Your task to perform on an android device: open app "Airtel Thanks" Image 0: 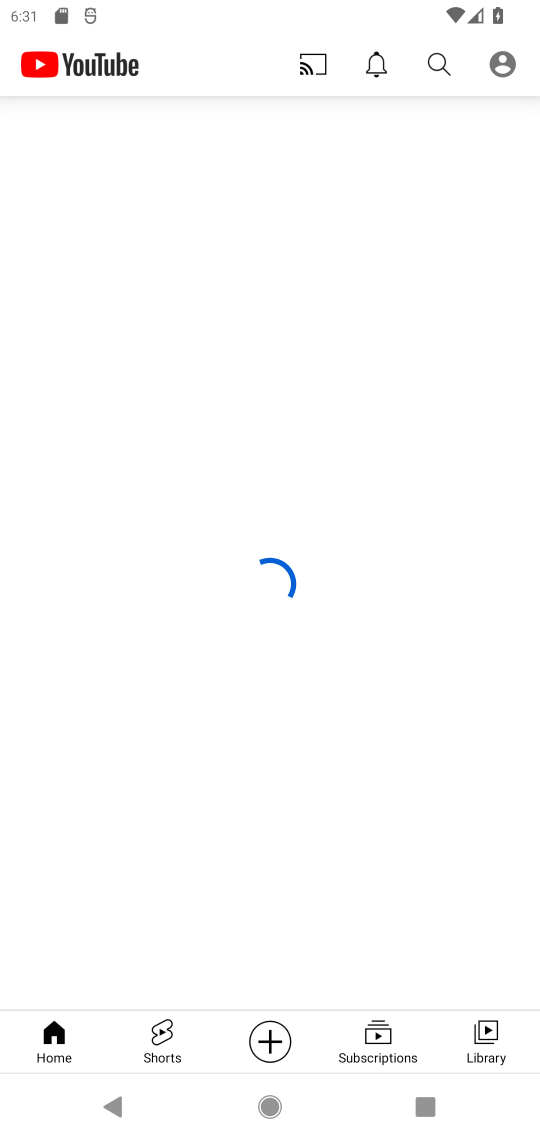
Step 0: press home button
Your task to perform on an android device: open app "Airtel Thanks" Image 1: 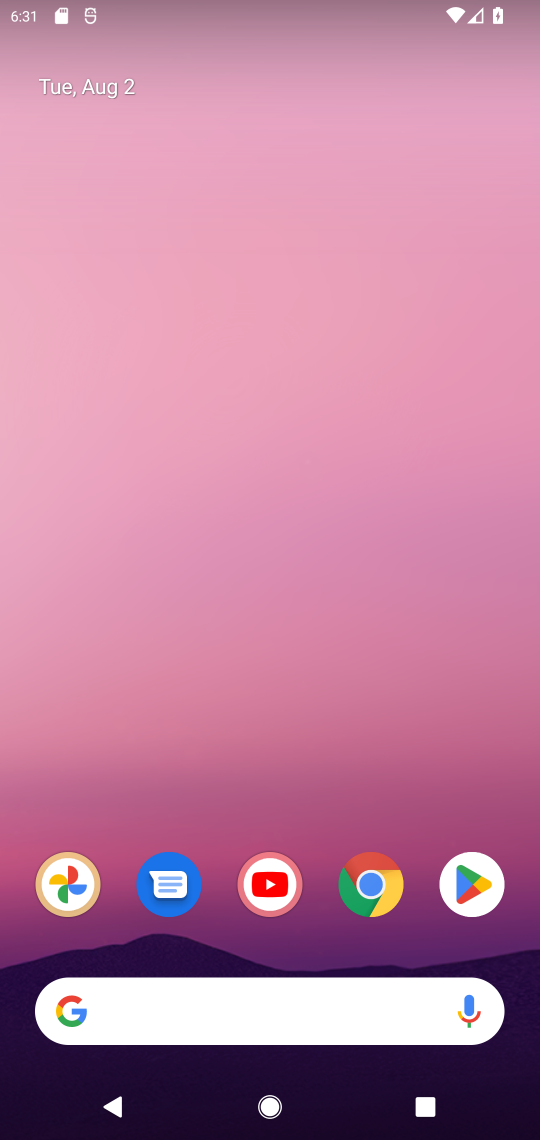
Step 1: click (463, 894)
Your task to perform on an android device: open app "Airtel Thanks" Image 2: 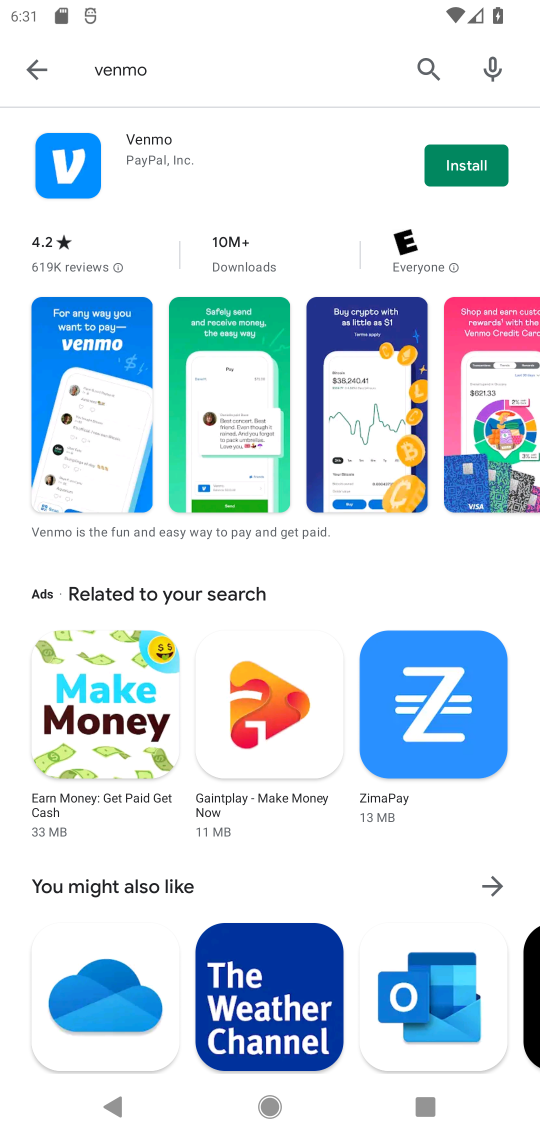
Step 2: click (422, 67)
Your task to perform on an android device: open app "Airtel Thanks" Image 3: 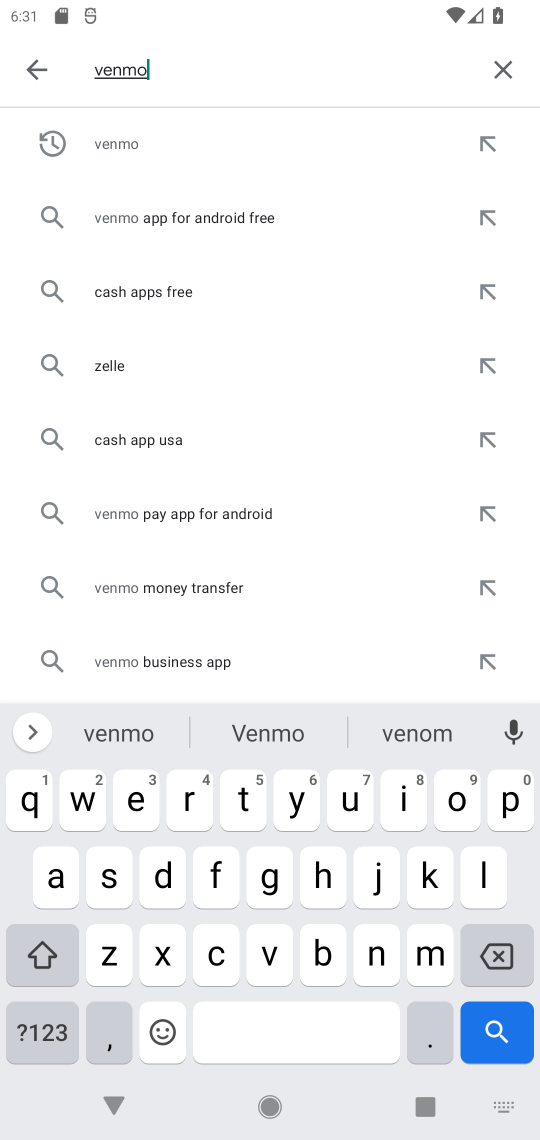
Step 3: click (497, 71)
Your task to perform on an android device: open app "Airtel Thanks" Image 4: 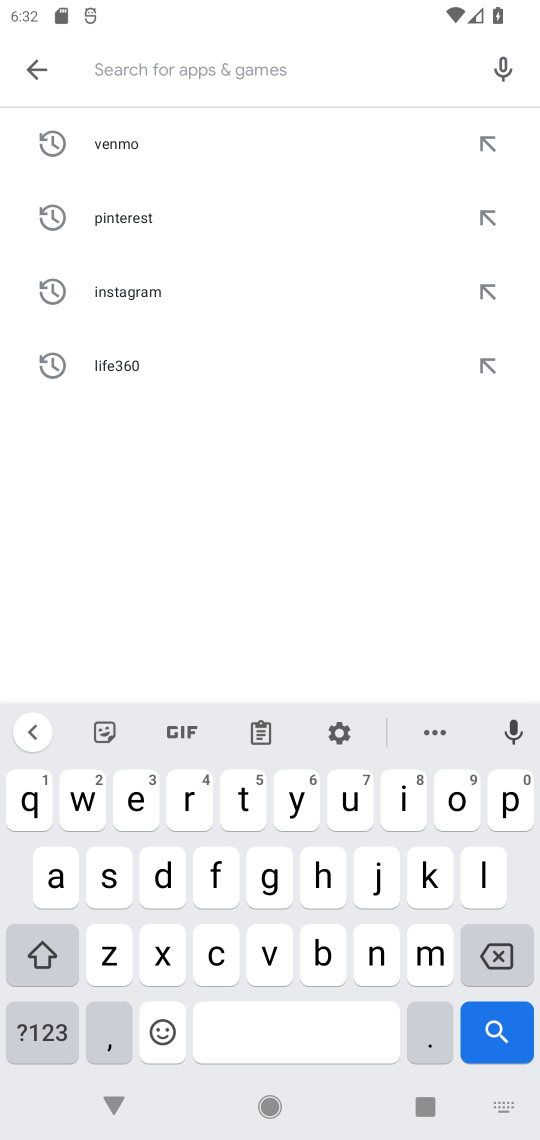
Step 4: click (52, 888)
Your task to perform on an android device: open app "Airtel Thanks" Image 5: 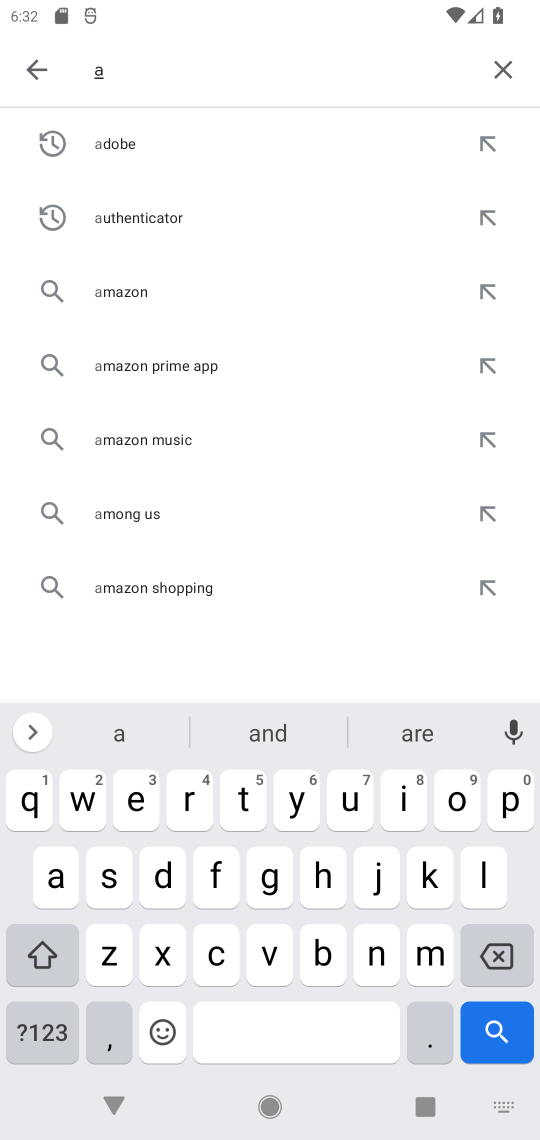
Step 5: click (400, 812)
Your task to perform on an android device: open app "Airtel Thanks" Image 6: 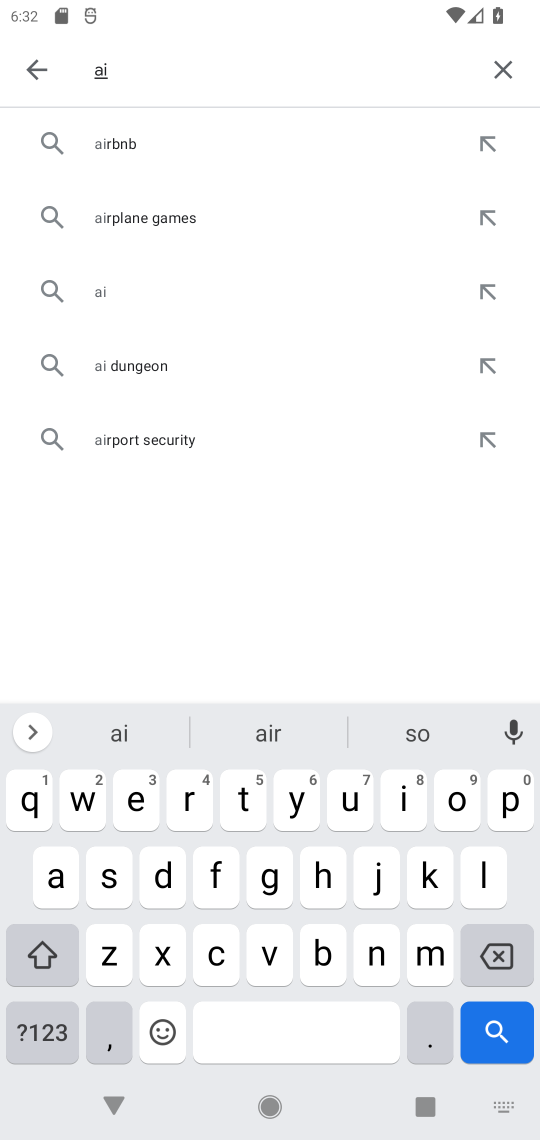
Step 6: click (179, 797)
Your task to perform on an android device: open app "Airtel Thanks" Image 7: 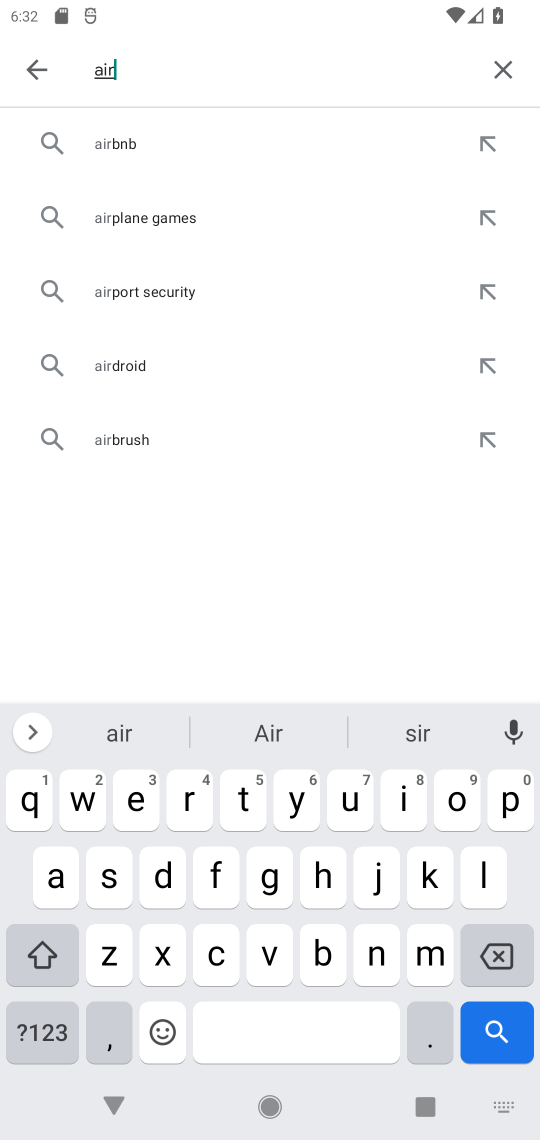
Step 7: click (242, 801)
Your task to perform on an android device: open app "Airtel Thanks" Image 8: 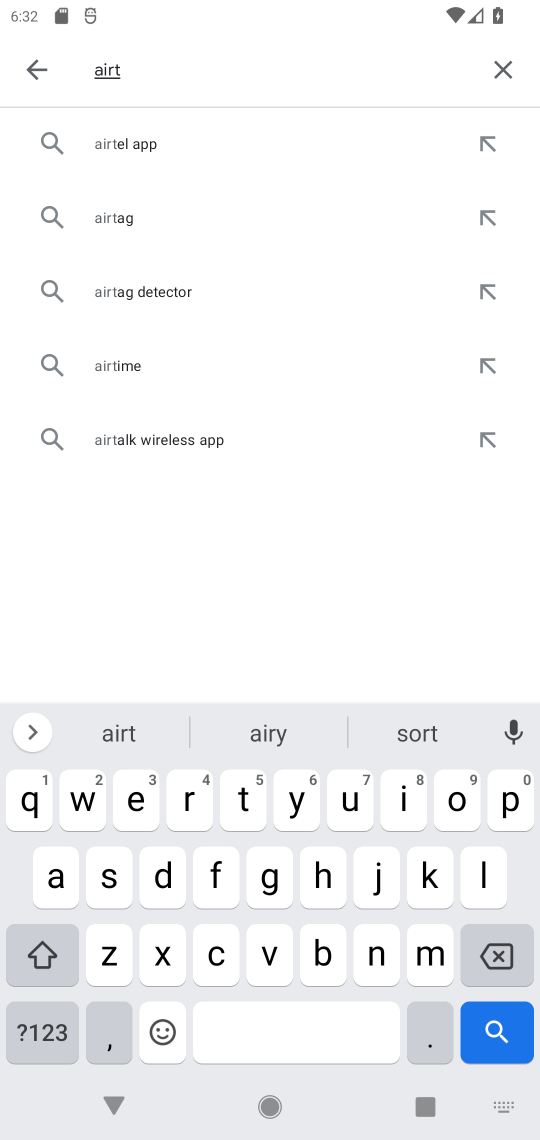
Step 8: click (153, 143)
Your task to perform on an android device: open app "Airtel Thanks" Image 9: 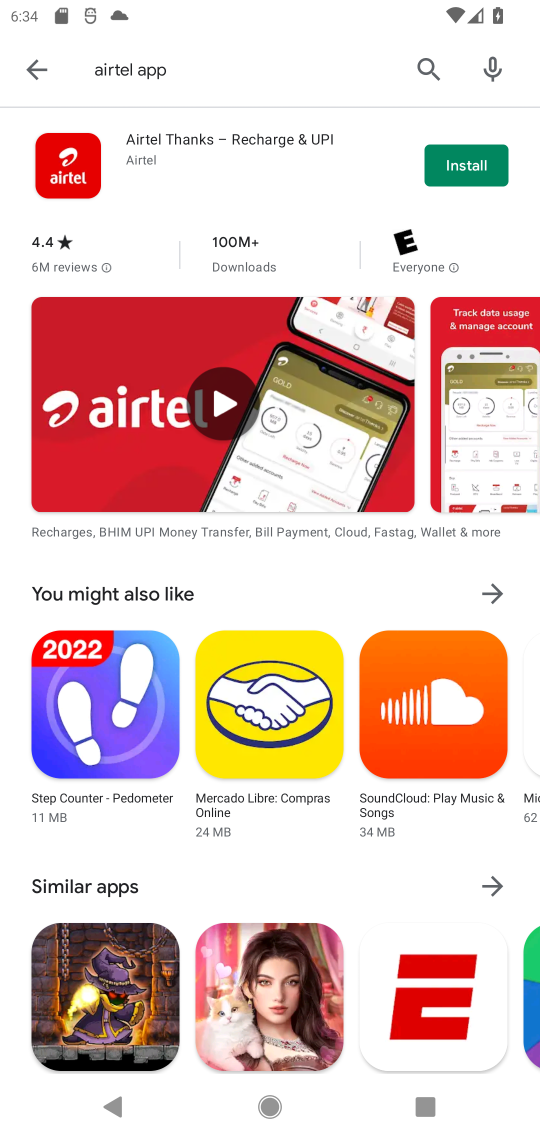
Step 9: task complete